Your task to perform on an android device: manage bookmarks in the chrome app Image 0: 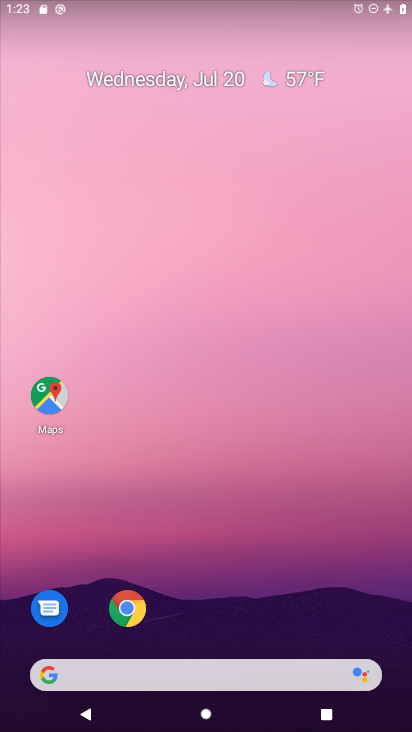
Step 0: click (127, 606)
Your task to perform on an android device: manage bookmarks in the chrome app Image 1: 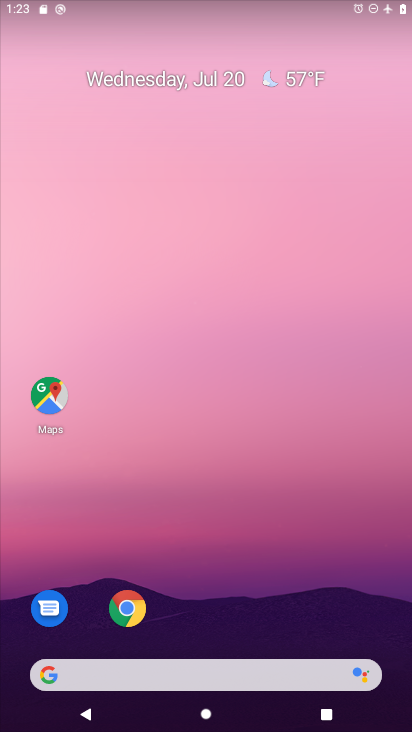
Step 1: click (127, 606)
Your task to perform on an android device: manage bookmarks in the chrome app Image 2: 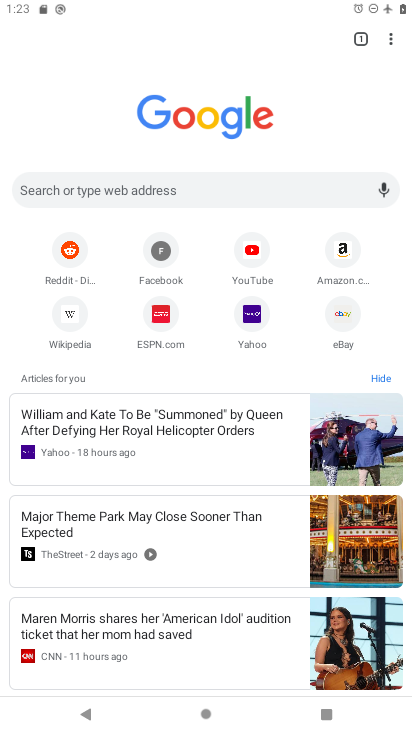
Step 2: click (395, 41)
Your task to perform on an android device: manage bookmarks in the chrome app Image 3: 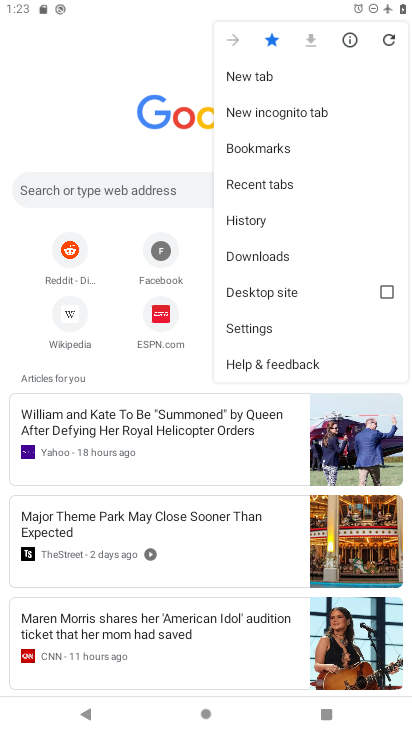
Step 3: click (293, 153)
Your task to perform on an android device: manage bookmarks in the chrome app Image 4: 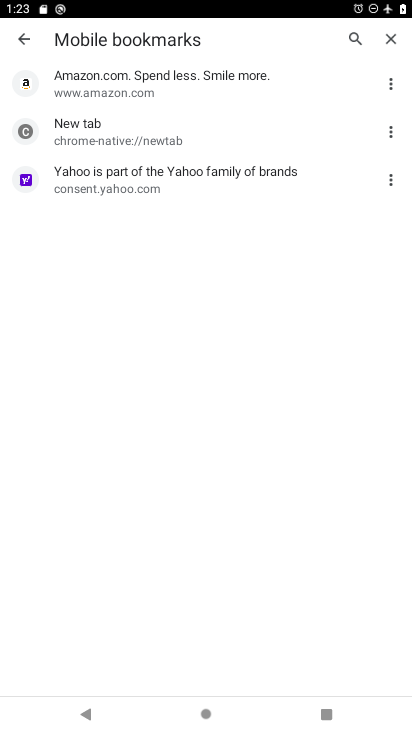
Step 4: click (397, 167)
Your task to perform on an android device: manage bookmarks in the chrome app Image 5: 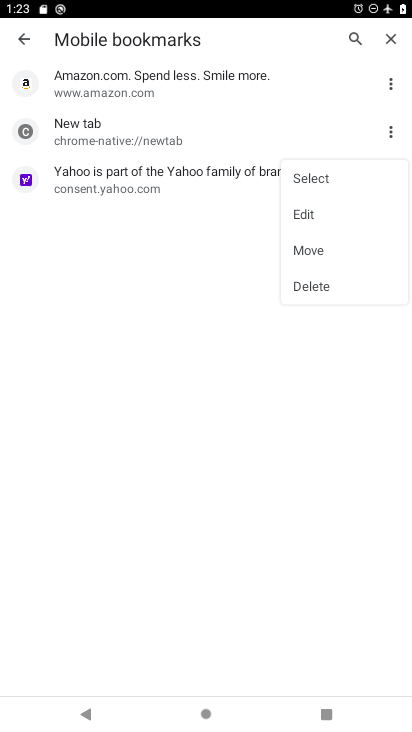
Step 5: click (329, 287)
Your task to perform on an android device: manage bookmarks in the chrome app Image 6: 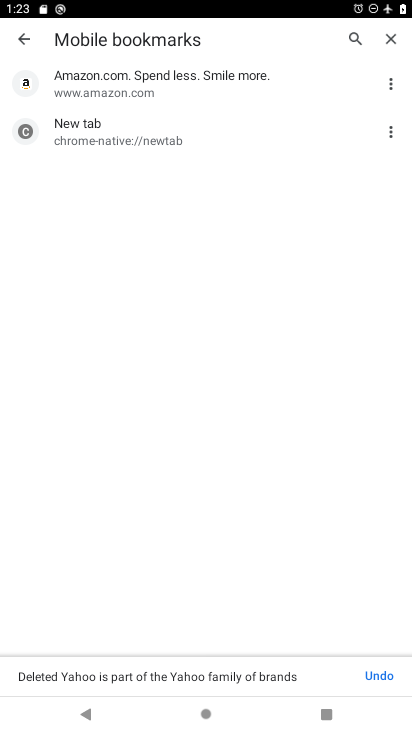
Step 6: task complete